Your task to perform on an android device: Check the weather Image 0: 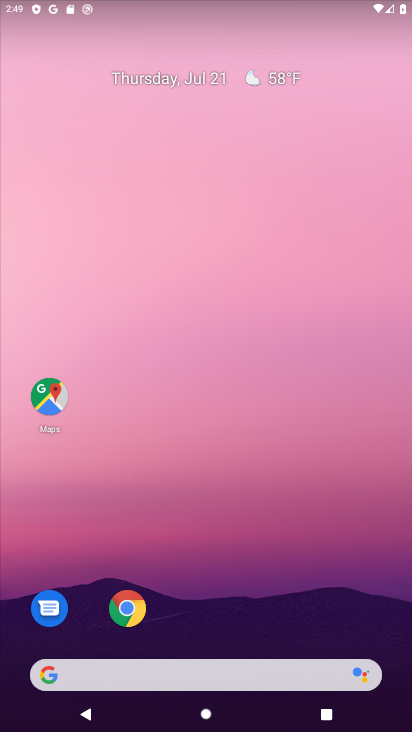
Step 0: drag from (404, 297) to (409, 342)
Your task to perform on an android device: Check the weather Image 1: 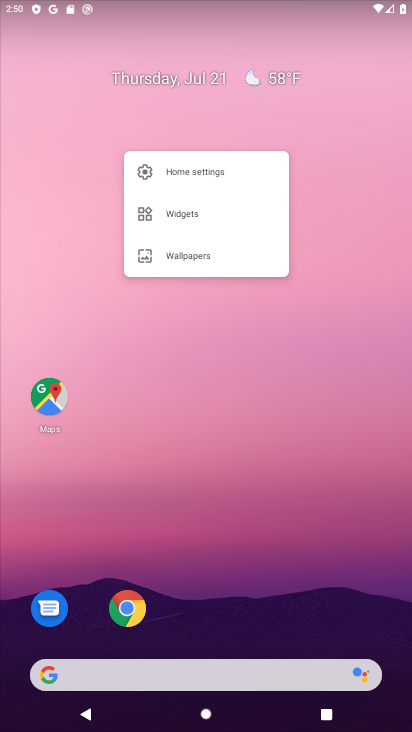
Step 1: click (271, 489)
Your task to perform on an android device: Check the weather Image 2: 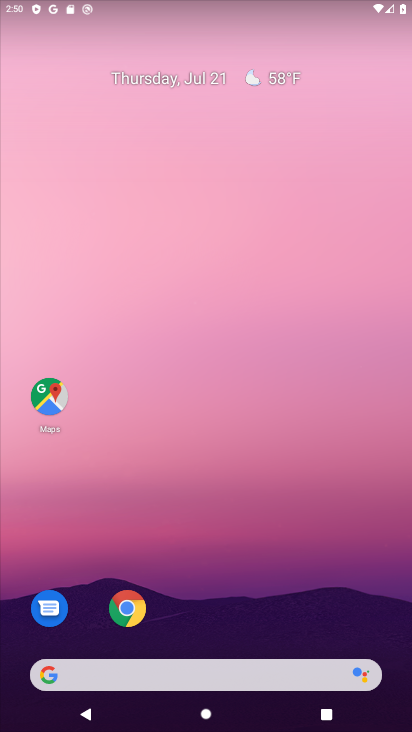
Step 2: drag from (54, 303) to (410, 313)
Your task to perform on an android device: Check the weather Image 3: 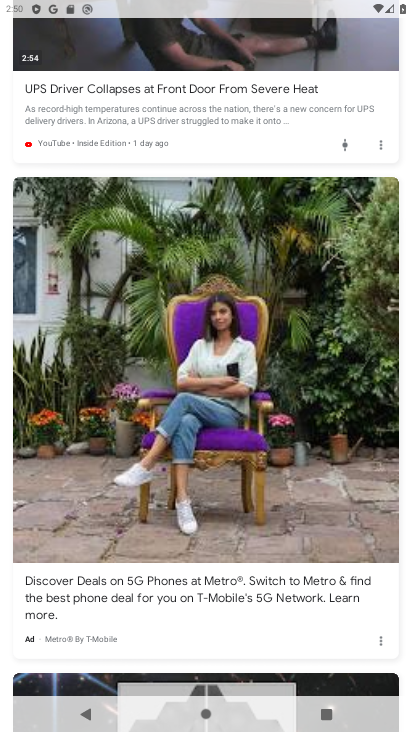
Step 3: drag from (159, 77) to (162, 587)
Your task to perform on an android device: Check the weather Image 4: 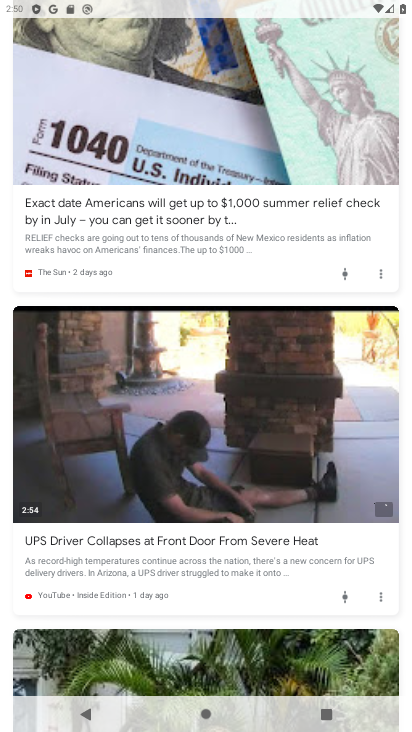
Step 4: drag from (213, 115) to (198, 680)
Your task to perform on an android device: Check the weather Image 5: 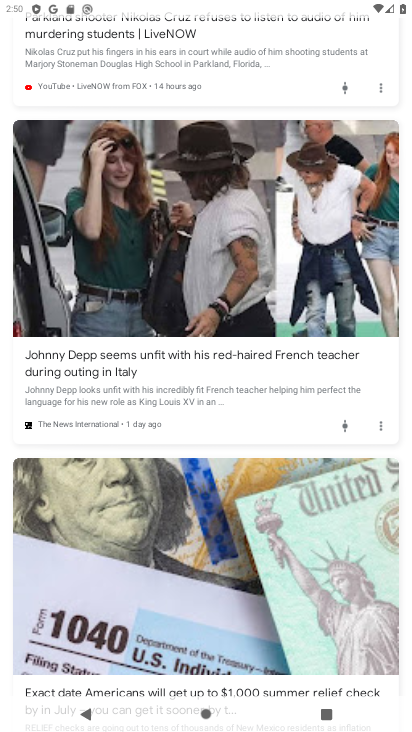
Step 5: drag from (228, 473) to (225, 563)
Your task to perform on an android device: Check the weather Image 6: 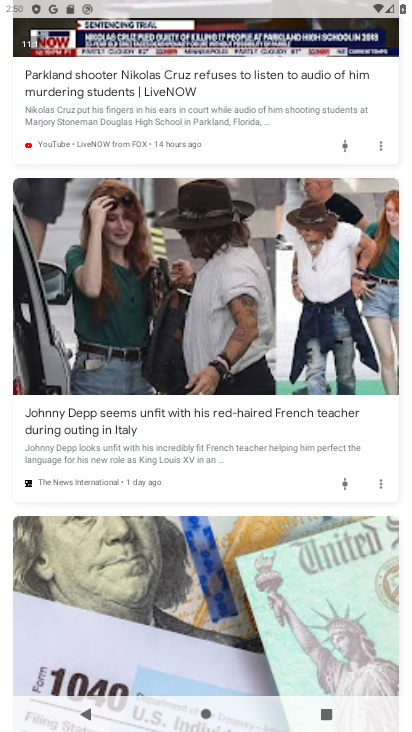
Step 6: drag from (242, 147) to (256, 731)
Your task to perform on an android device: Check the weather Image 7: 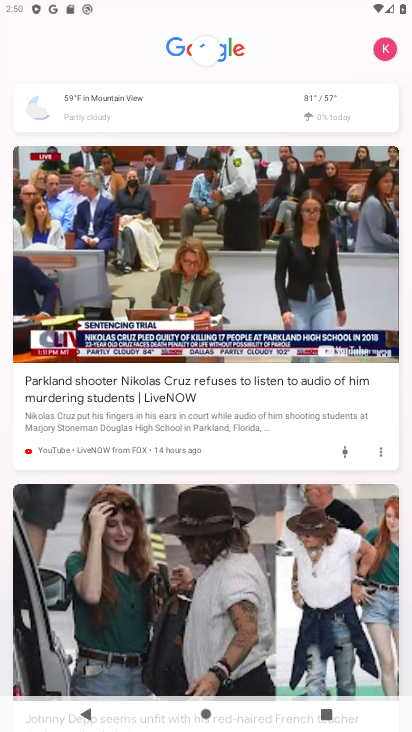
Step 7: click (258, 119)
Your task to perform on an android device: Check the weather Image 8: 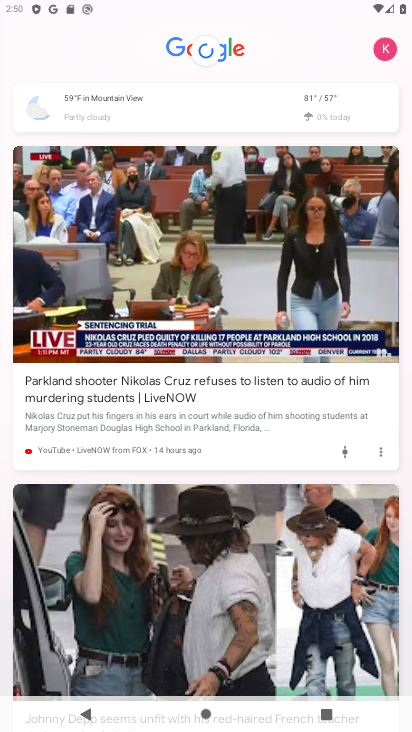
Step 8: drag from (195, 350) to (231, 725)
Your task to perform on an android device: Check the weather Image 9: 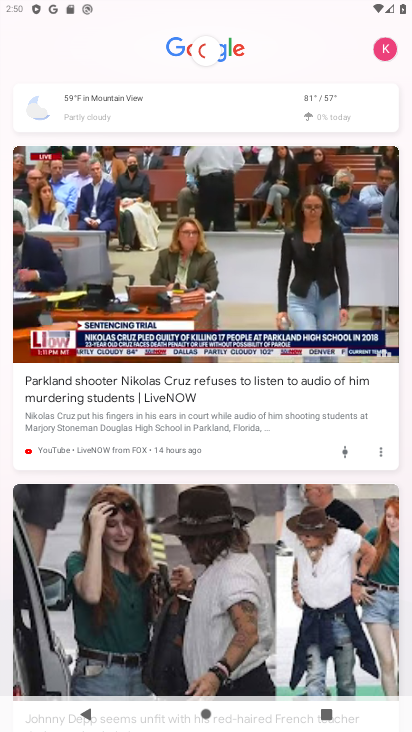
Step 9: drag from (200, 312) to (235, 639)
Your task to perform on an android device: Check the weather Image 10: 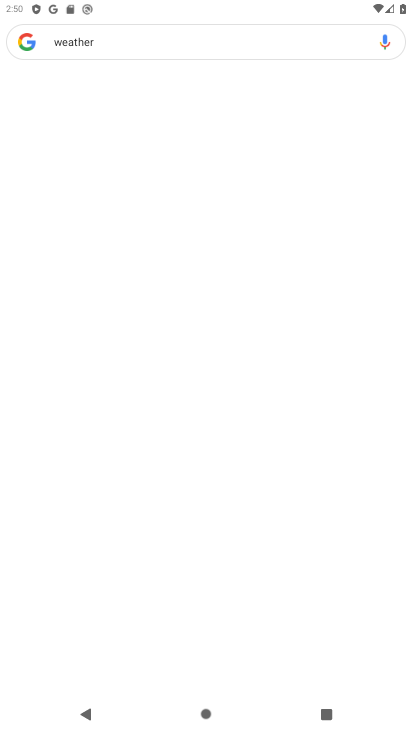
Step 10: click (309, 97)
Your task to perform on an android device: Check the weather Image 11: 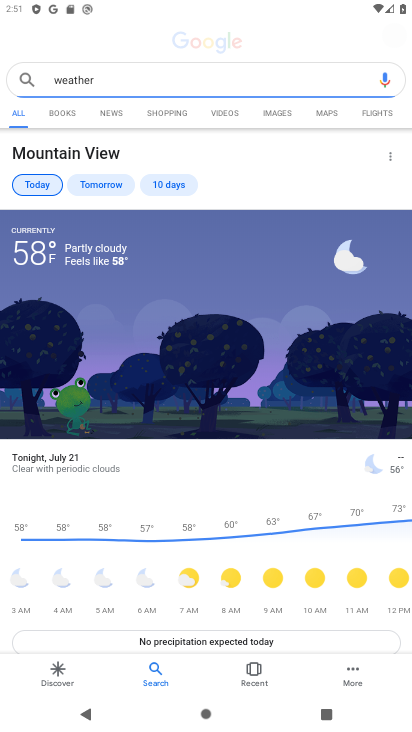
Step 11: click (252, 669)
Your task to perform on an android device: Check the weather Image 12: 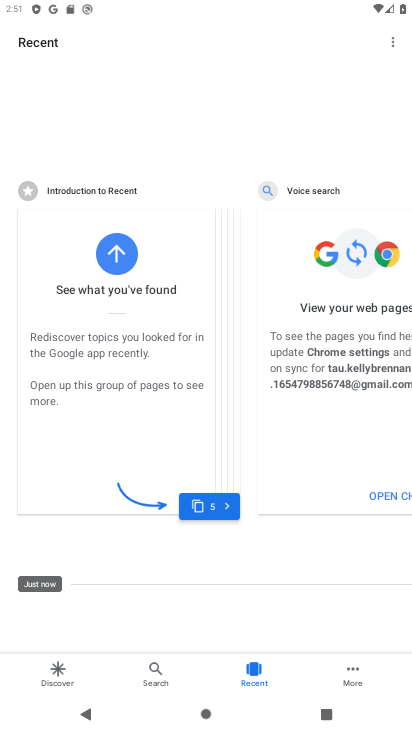
Step 12: task complete